Your task to perform on an android device: Clear all items from cart on costco.com. Add "acer predator" to the cart on costco.com, then select checkout. Image 0: 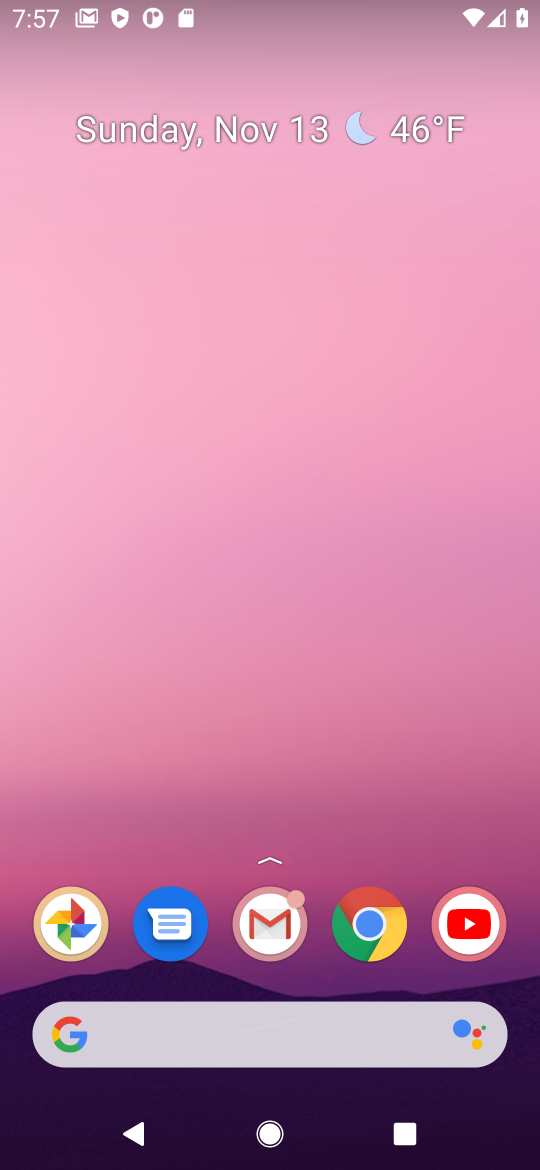
Step 0: click (373, 913)
Your task to perform on an android device: Clear all items from cart on costco.com. Add "acer predator" to the cart on costco.com, then select checkout. Image 1: 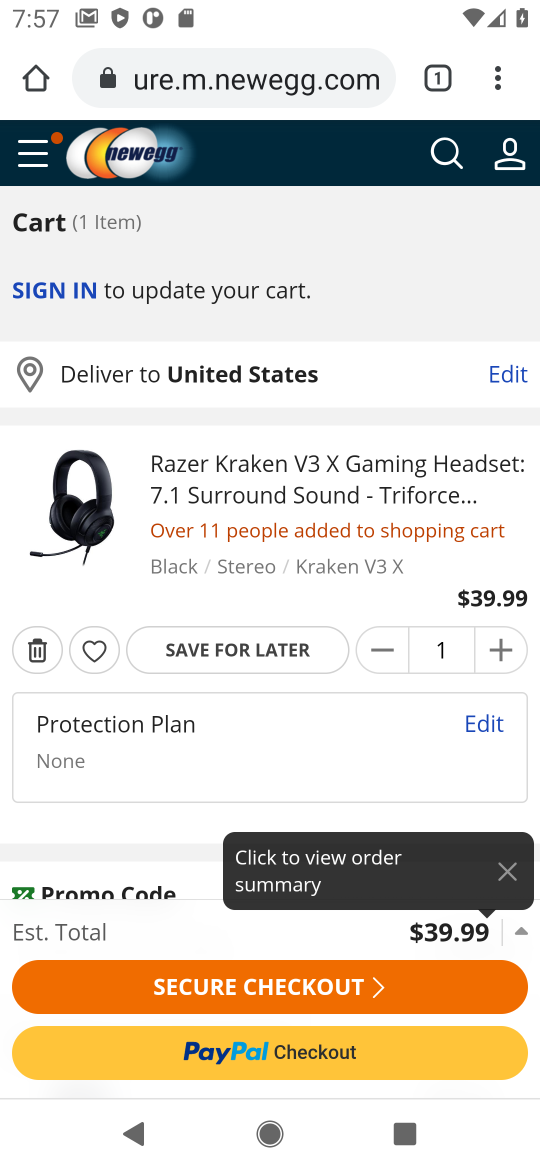
Step 1: click (312, 81)
Your task to perform on an android device: Clear all items from cart on costco.com. Add "acer predator" to the cart on costco.com, then select checkout. Image 2: 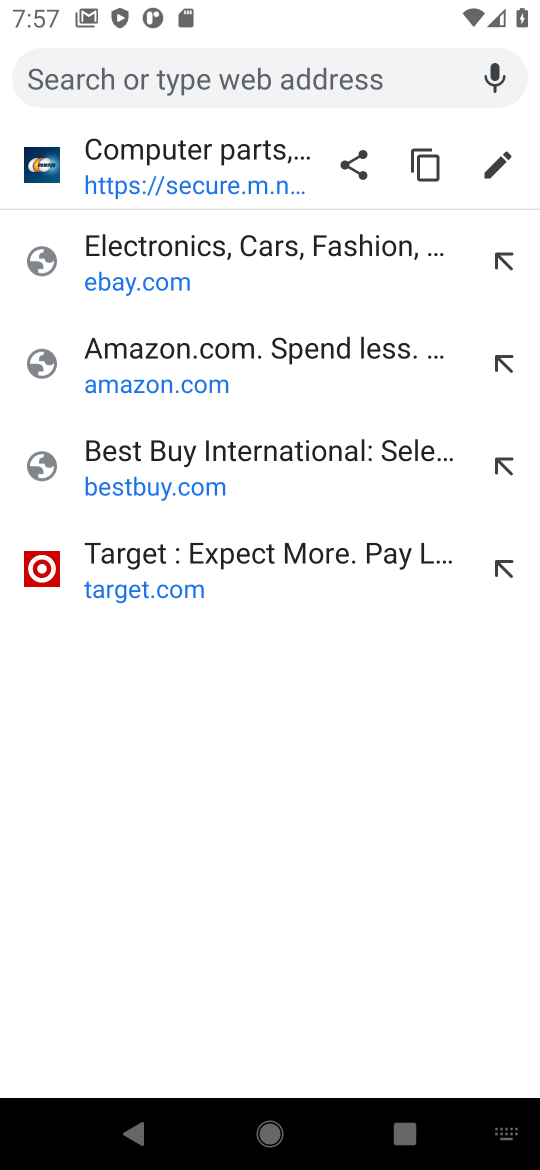
Step 2: type " costco.com"
Your task to perform on an android device: Clear all items from cart on costco.com. Add "acer predator" to the cart on costco.com, then select checkout. Image 3: 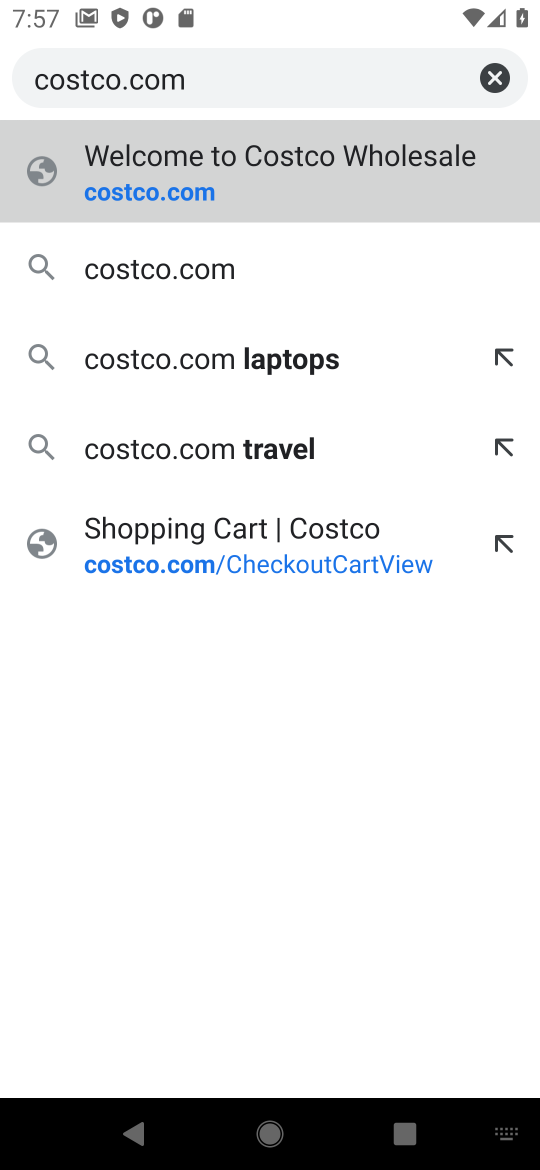
Step 3: press enter
Your task to perform on an android device: Clear all items from cart on costco.com. Add "acer predator" to the cart on costco.com, then select checkout. Image 4: 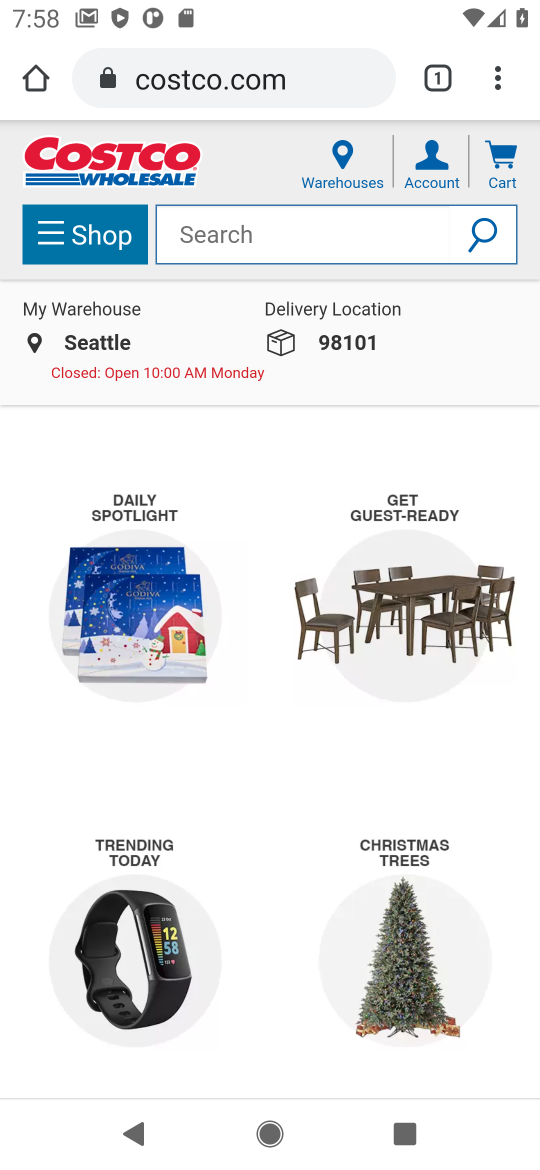
Step 4: click (198, 233)
Your task to perform on an android device: Clear all items from cart on costco.com. Add "acer predator" to the cart on costco.com, then select checkout. Image 5: 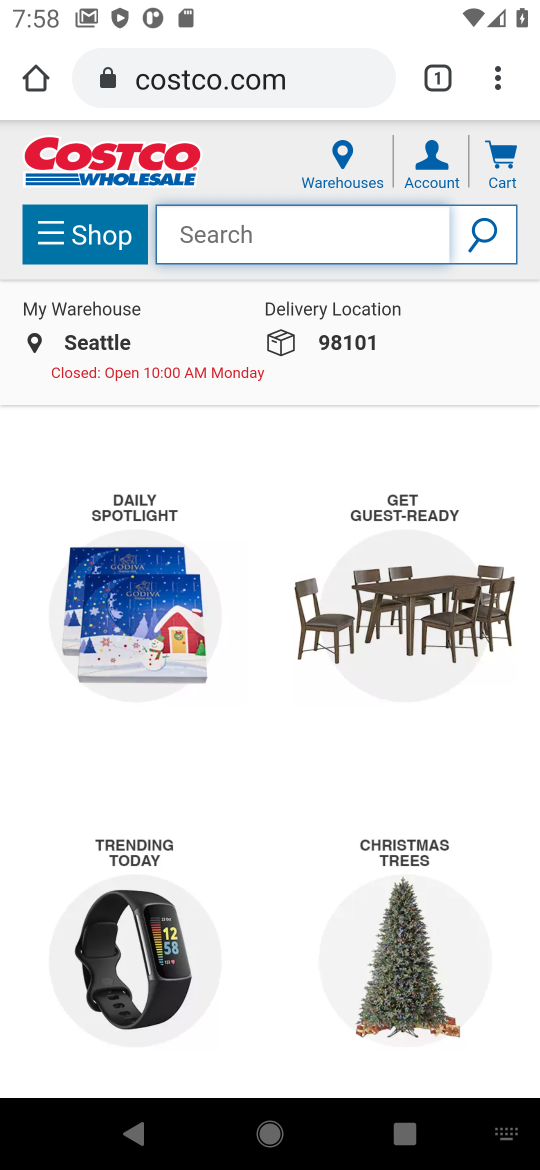
Step 5: type "acer predator"
Your task to perform on an android device: Clear all items from cart on costco.com. Add "acer predator" to the cart on costco.com, then select checkout. Image 6: 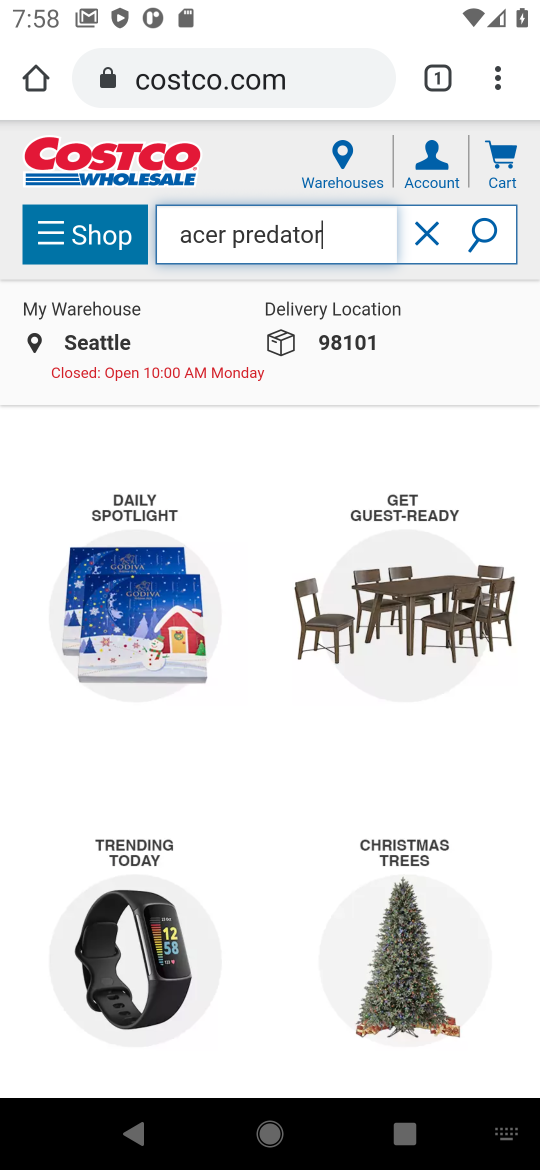
Step 6: press enter
Your task to perform on an android device: Clear all items from cart on costco.com. Add "acer predator" to the cart on costco.com, then select checkout. Image 7: 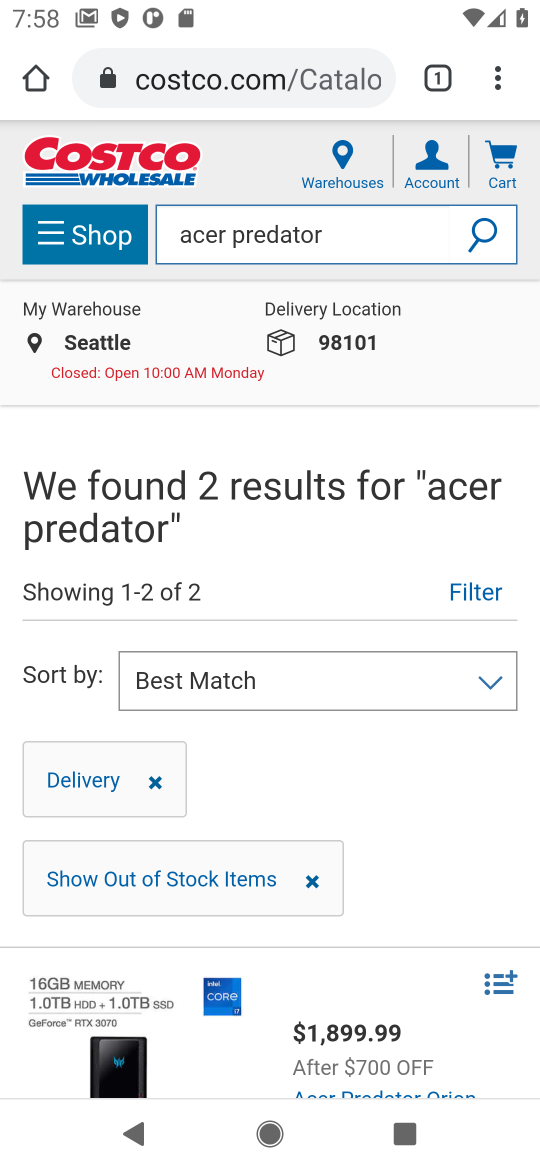
Step 7: drag from (331, 925) to (391, 570)
Your task to perform on an android device: Clear all items from cart on costco.com. Add "acer predator" to the cart on costco.com, then select checkout. Image 8: 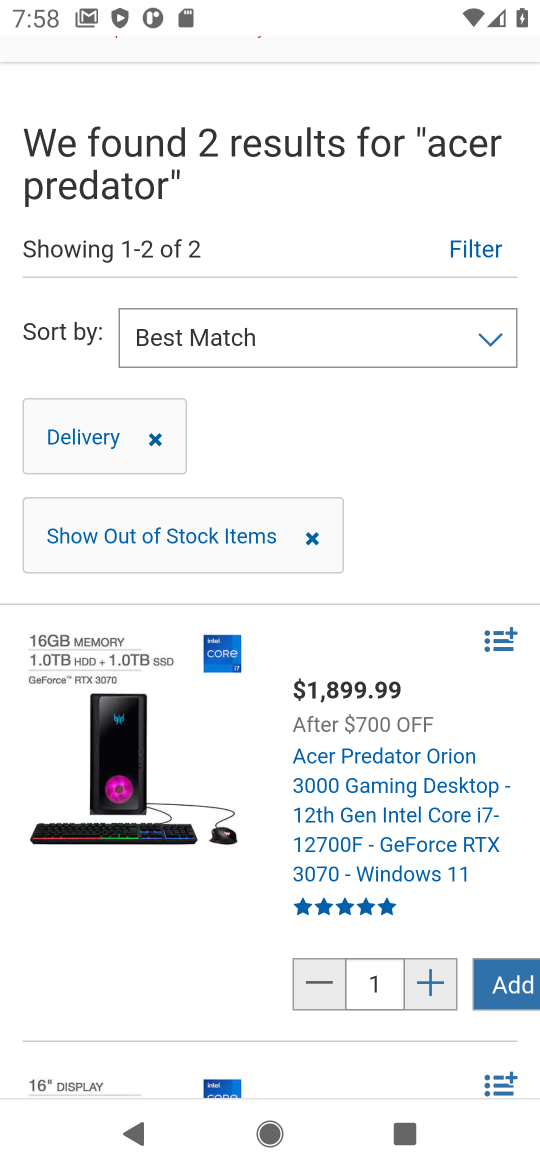
Step 8: click (510, 985)
Your task to perform on an android device: Clear all items from cart on costco.com. Add "acer predator" to the cart on costco.com, then select checkout. Image 9: 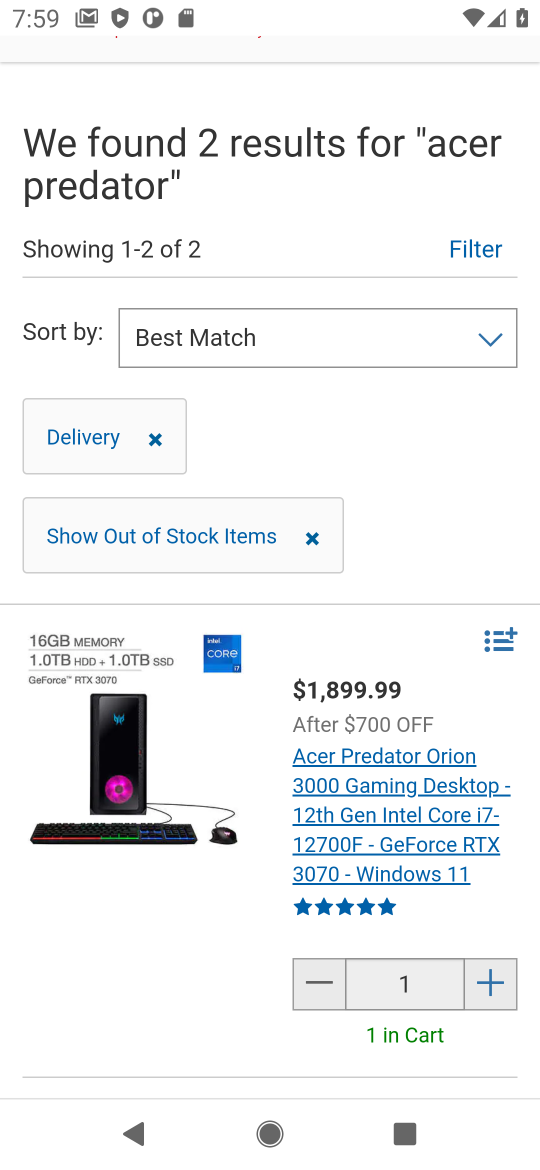
Step 9: drag from (377, 445) to (338, 1029)
Your task to perform on an android device: Clear all items from cart on costco.com. Add "acer predator" to the cart on costco.com, then select checkout. Image 10: 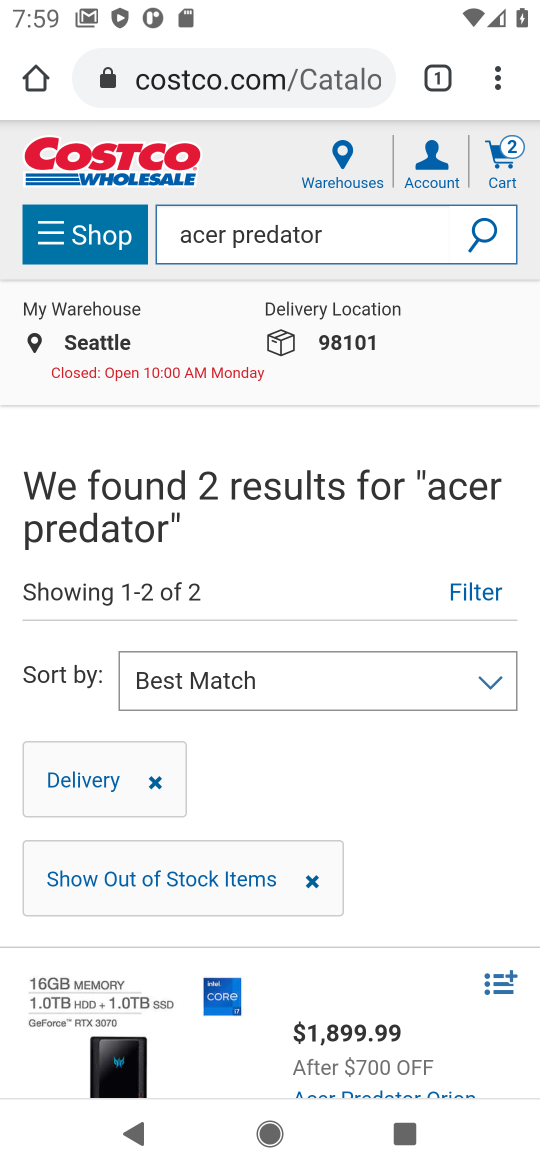
Step 10: click (498, 147)
Your task to perform on an android device: Clear all items from cart on costco.com. Add "acer predator" to the cart on costco.com, then select checkout. Image 11: 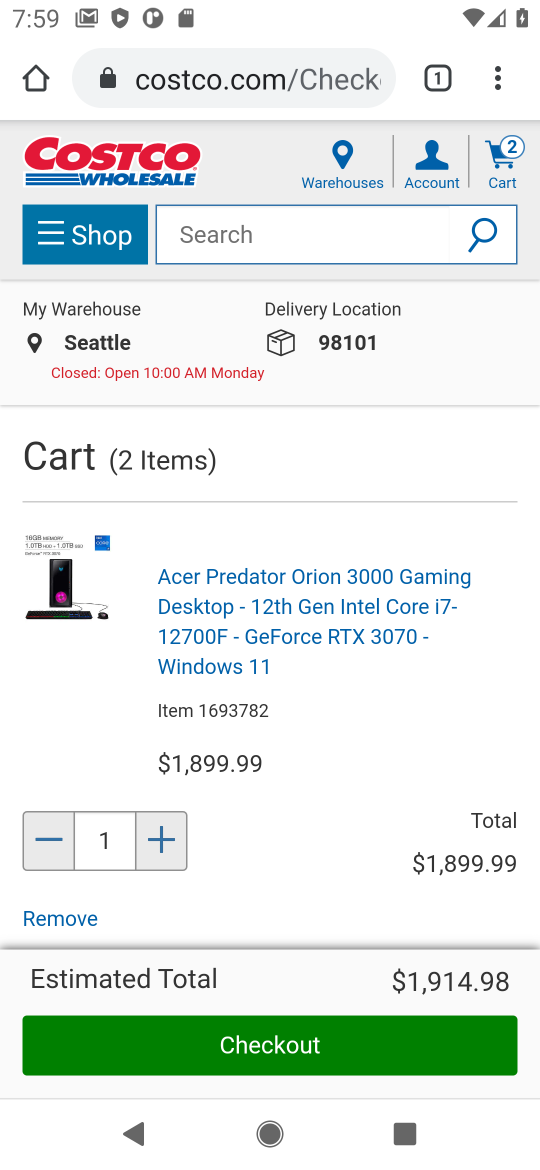
Step 11: drag from (320, 785) to (488, 19)
Your task to perform on an android device: Clear all items from cart on costco.com. Add "acer predator" to the cart on costco.com, then select checkout. Image 12: 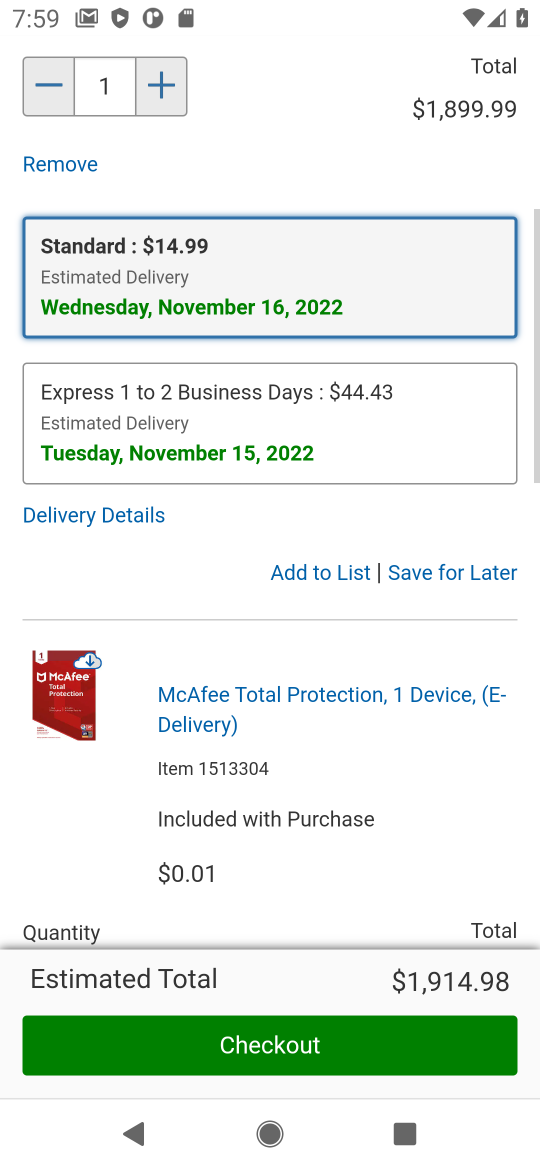
Step 12: drag from (233, 799) to (493, 260)
Your task to perform on an android device: Clear all items from cart on costco.com. Add "acer predator" to the cart on costco.com, then select checkout. Image 13: 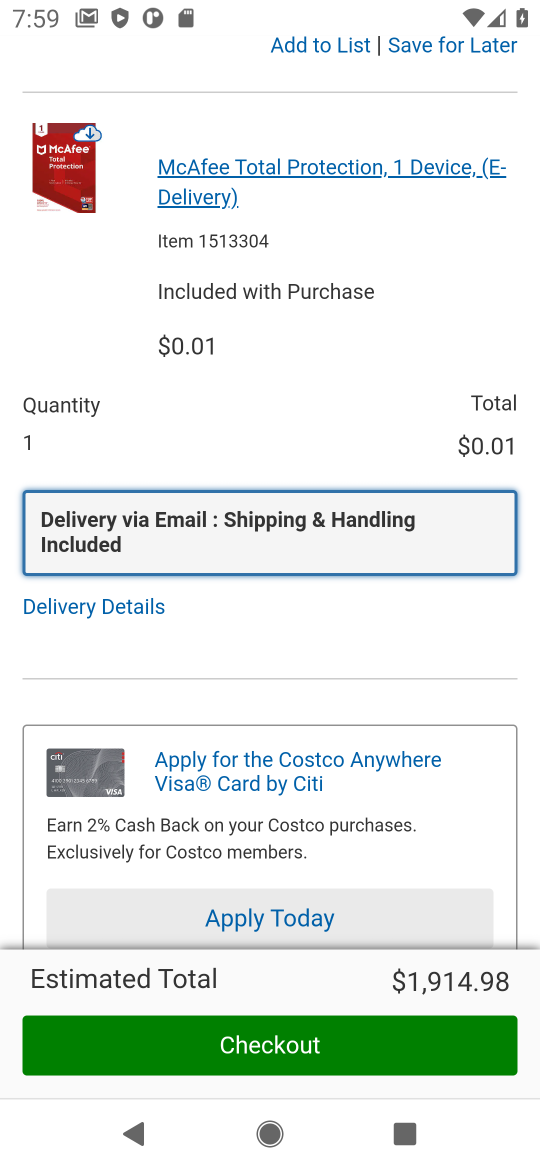
Step 13: drag from (312, 797) to (530, 69)
Your task to perform on an android device: Clear all items from cart on costco.com. Add "acer predator" to the cart on costco.com, then select checkout. Image 14: 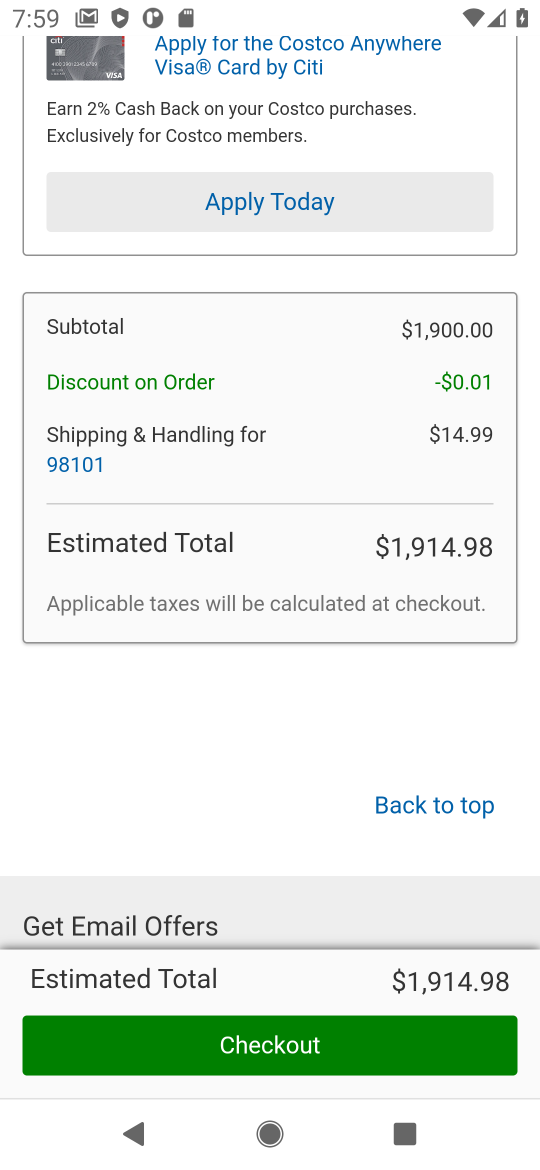
Step 14: click (293, 1048)
Your task to perform on an android device: Clear all items from cart on costco.com. Add "acer predator" to the cart on costco.com, then select checkout. Image 15: 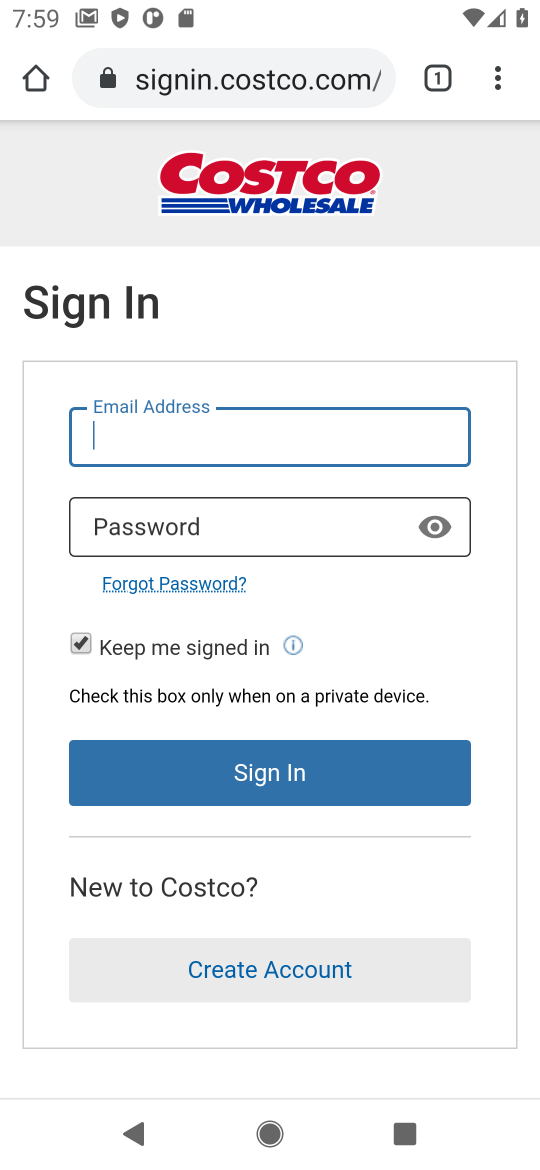
Step 15: task complete